Your task to perform on an android device: Open the Play Movies app and select the watchlist tab. Image 0: 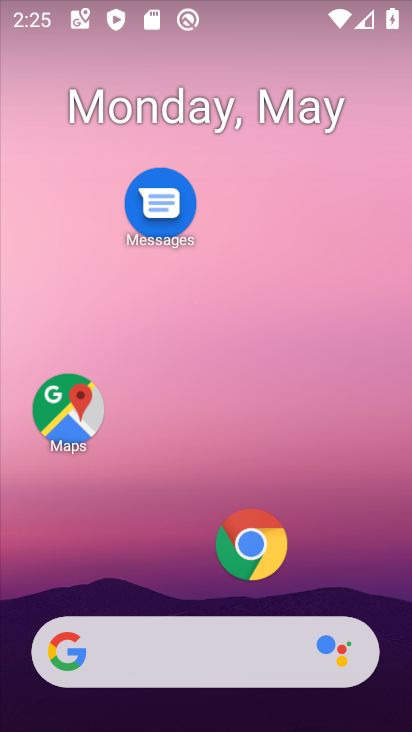
Step 0: drag from (176, 584) to (176, 302)
Your task to perform on an android device: Open the Play Movies app and select the watchlist tab. Image 1: 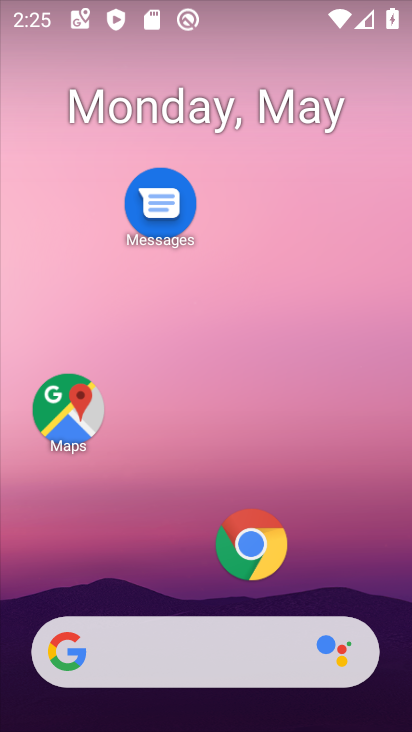
Step 1: drag from (175, 579) to (184, 217)
Your task to perform on an android device: Open the Play Movies app and select the watchlist tab. Image 2: 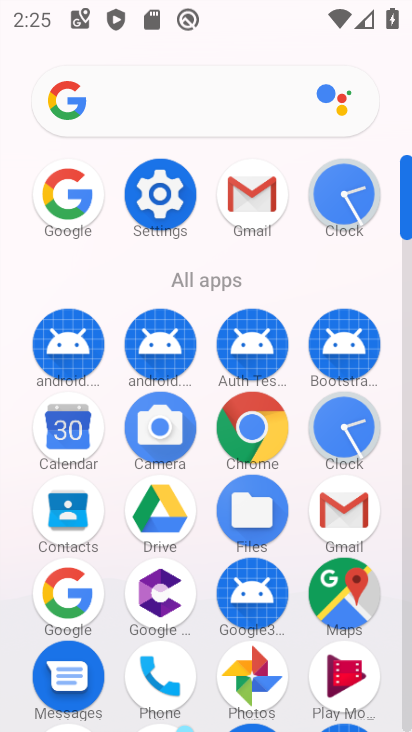
Step 2: drag from (299, 636) to (294, 359)
Your task to perform on an android device: Open the Play Movies app and select the watchlist tab. Image 3: 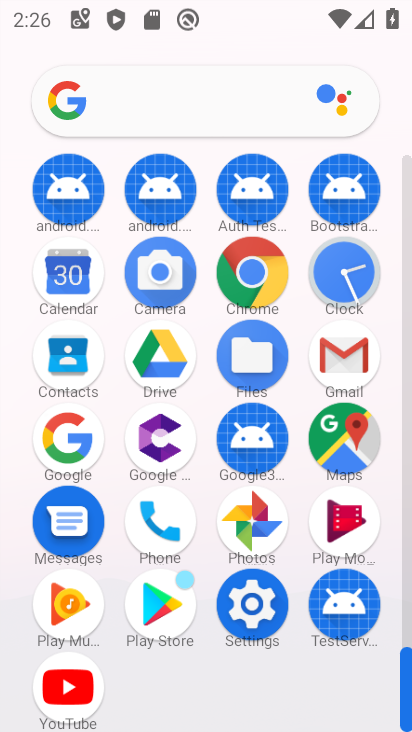
Step 3: click (327, 519)
Your task to perform on an android device: Open the Play Movies app and select the watchlist tab. Image 4: 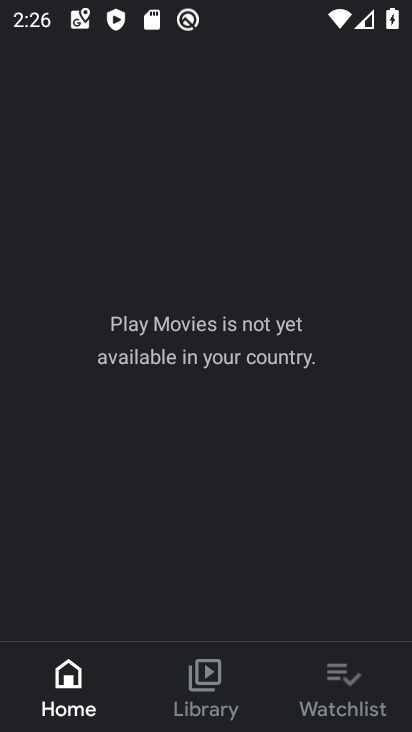
Step 4: click (329, 674)
Your task to perform on an android device: Open the Play Movies app and select the watchlist tab. Image 5: 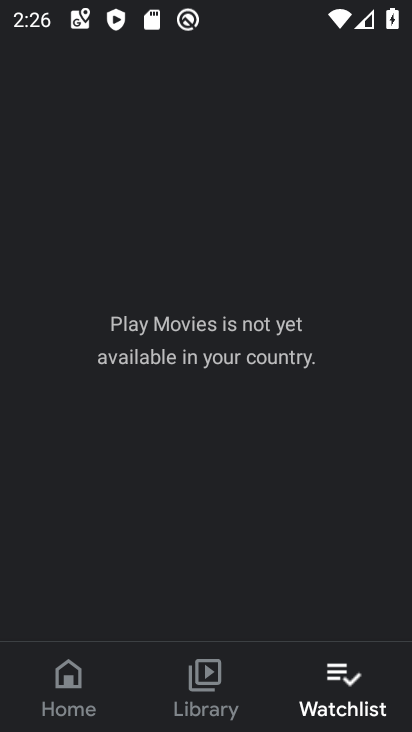
Step 5: task complete